Your task to perform on an android device: add a contact Image 0: 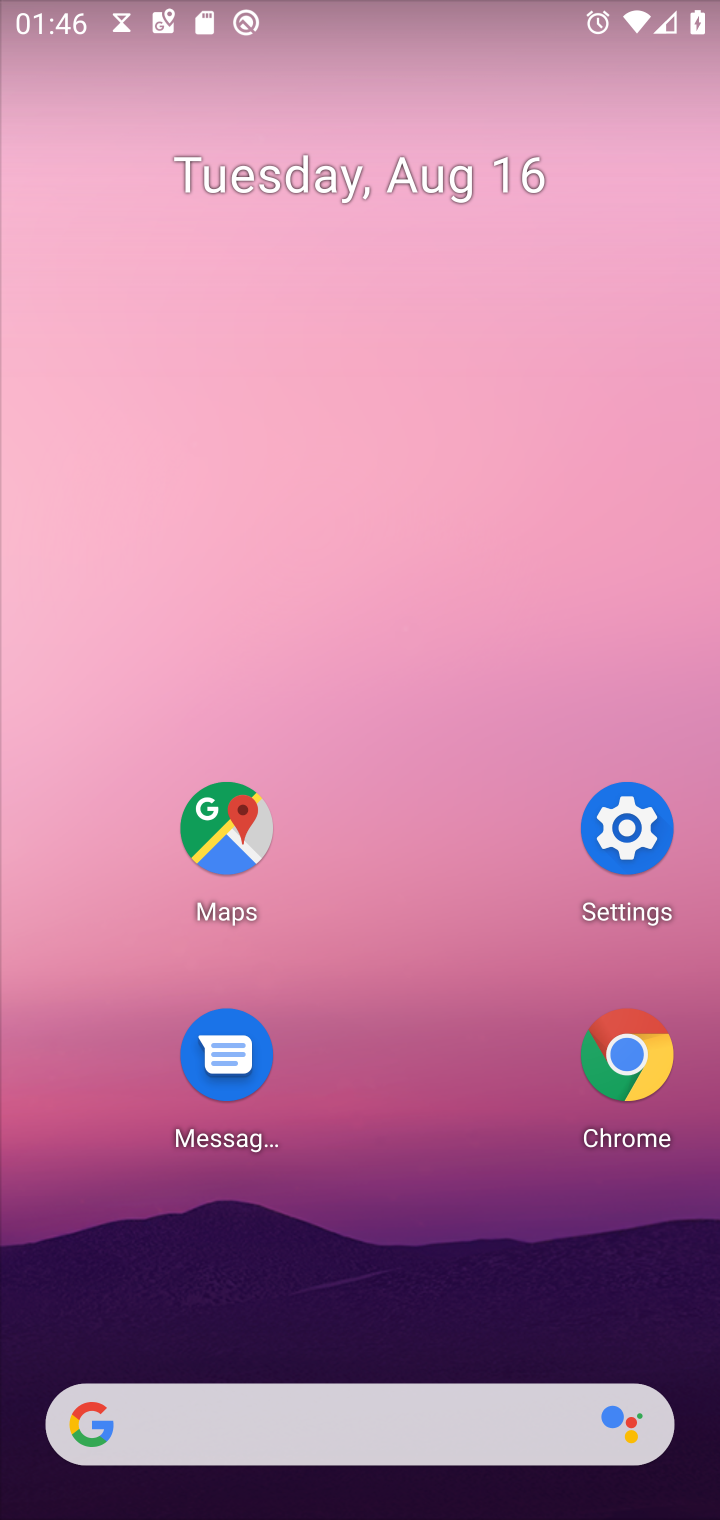
Step 0: press home button
Your task to perform on an android device: add a contact Image 1: 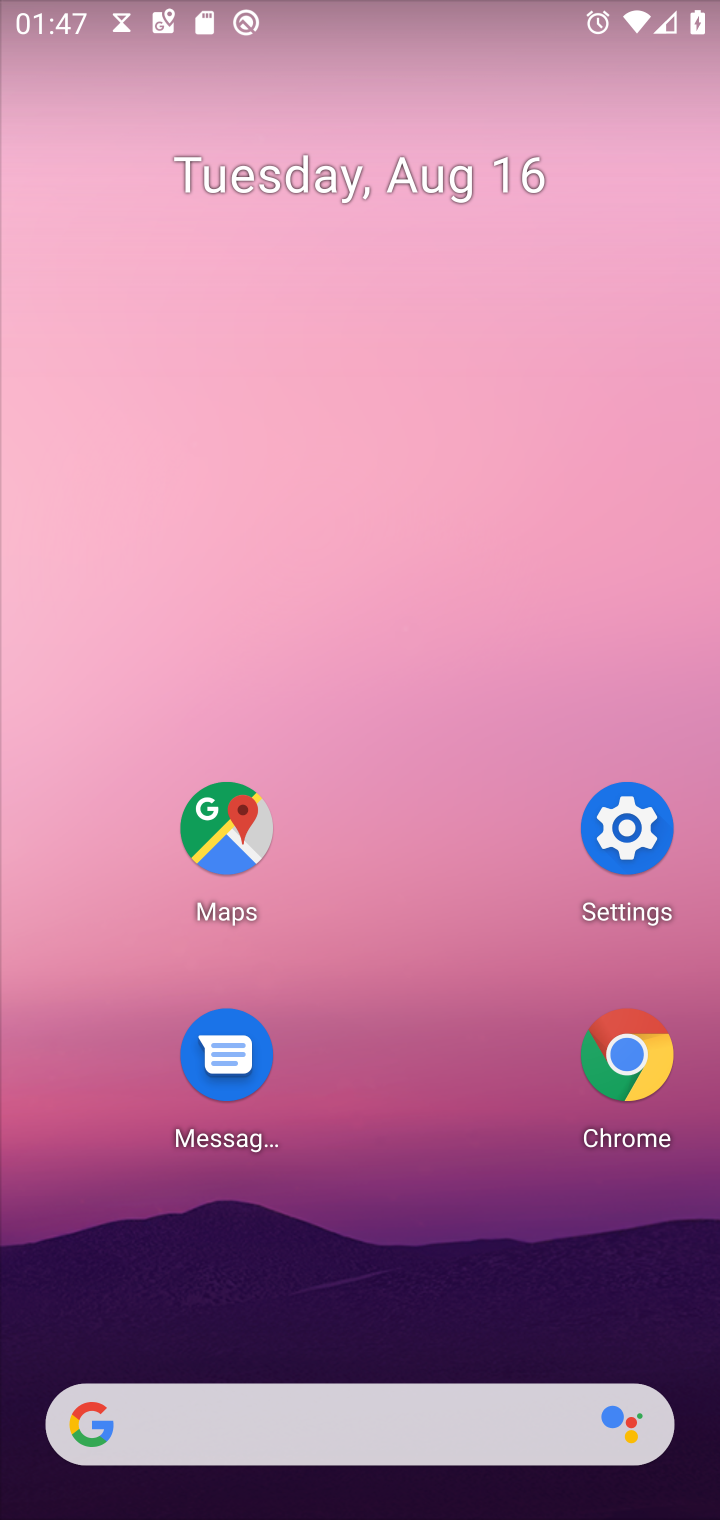
Step 1: drag from (278, 1407) to (435, 112)
Your task to perform on an android device: add a contact Image 2: 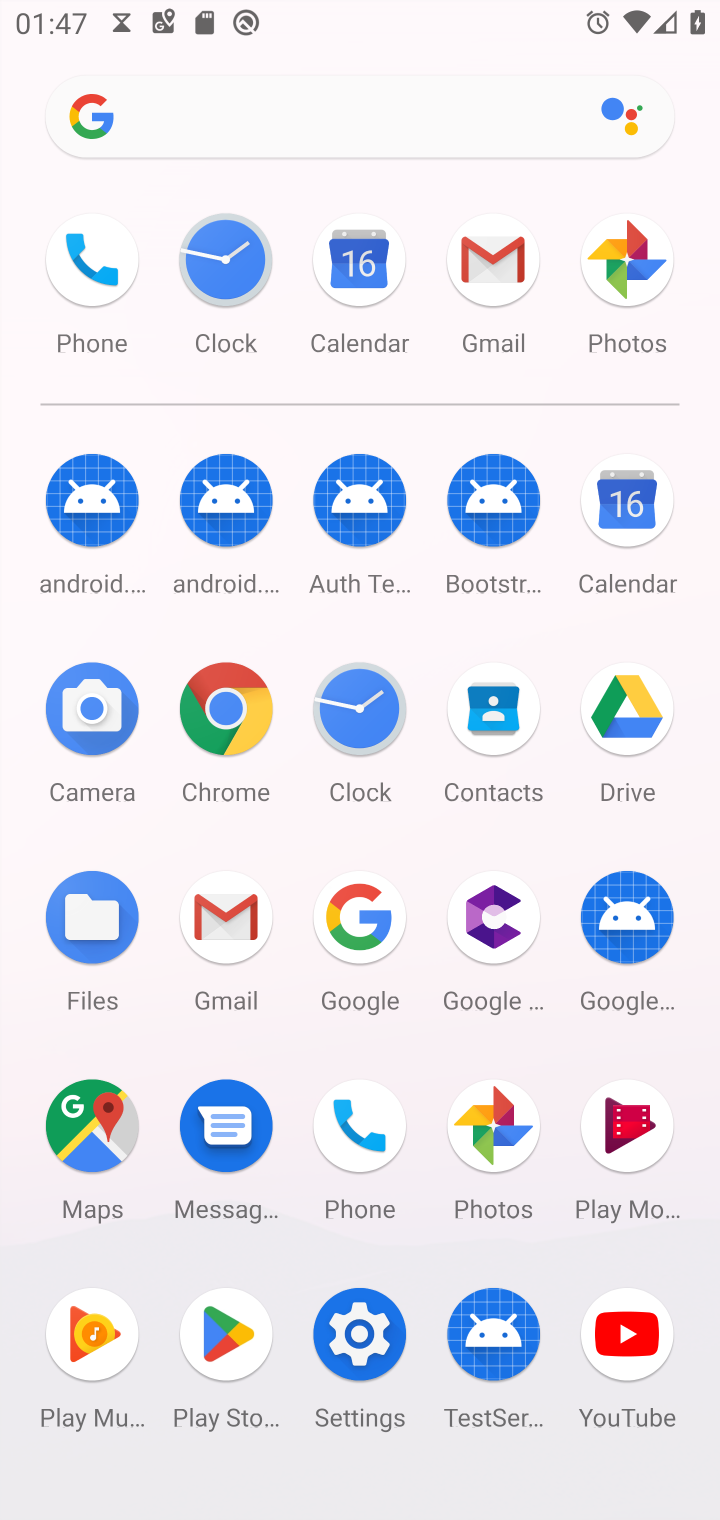
Step 2: click (482, 732)
Your task to perform on an android device: add a contact Image 3: 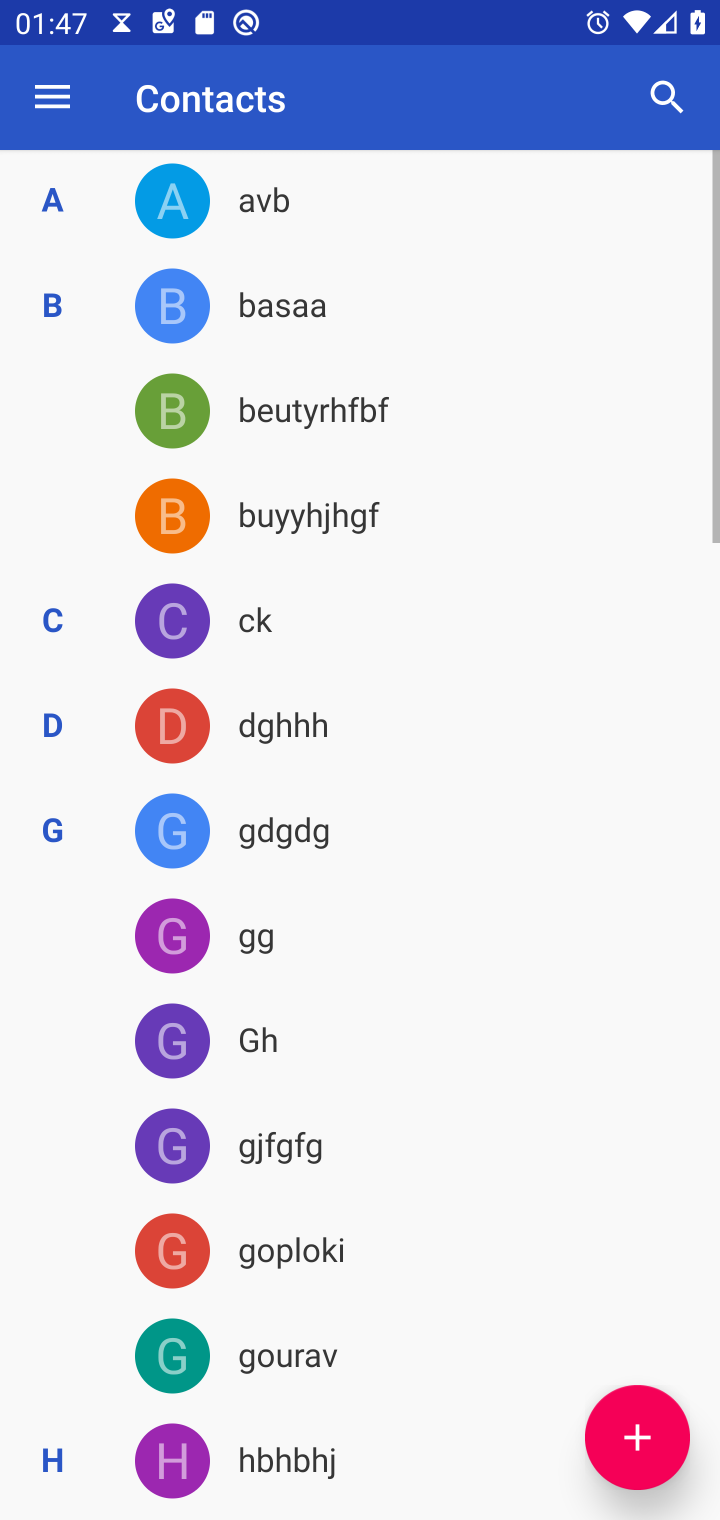
Step 3: drag from (640, 1437) to (504, 108)
Your task to perform on an android device: add a contact Image 4: 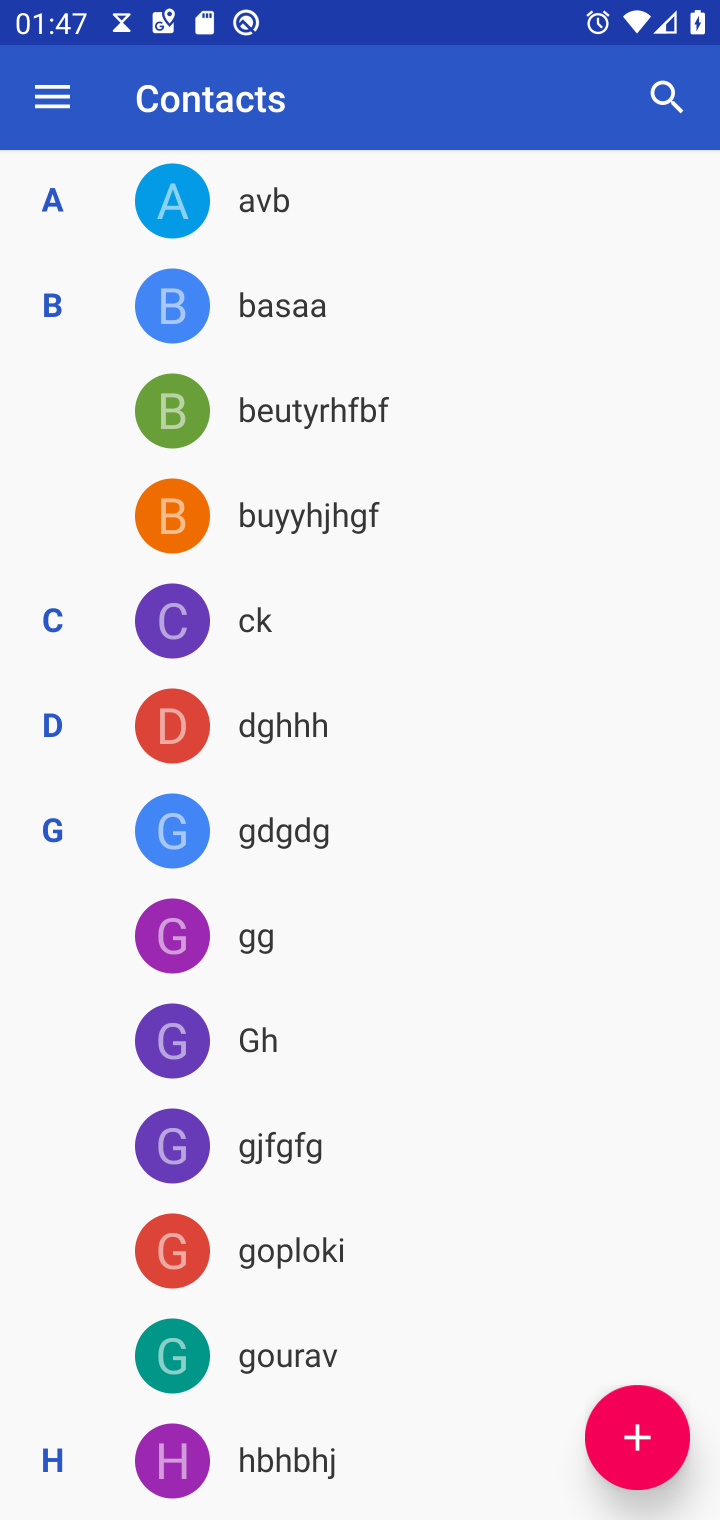
Step 4: click (650, 1428)
Your task to perform on an android device: add a contact Image 5: 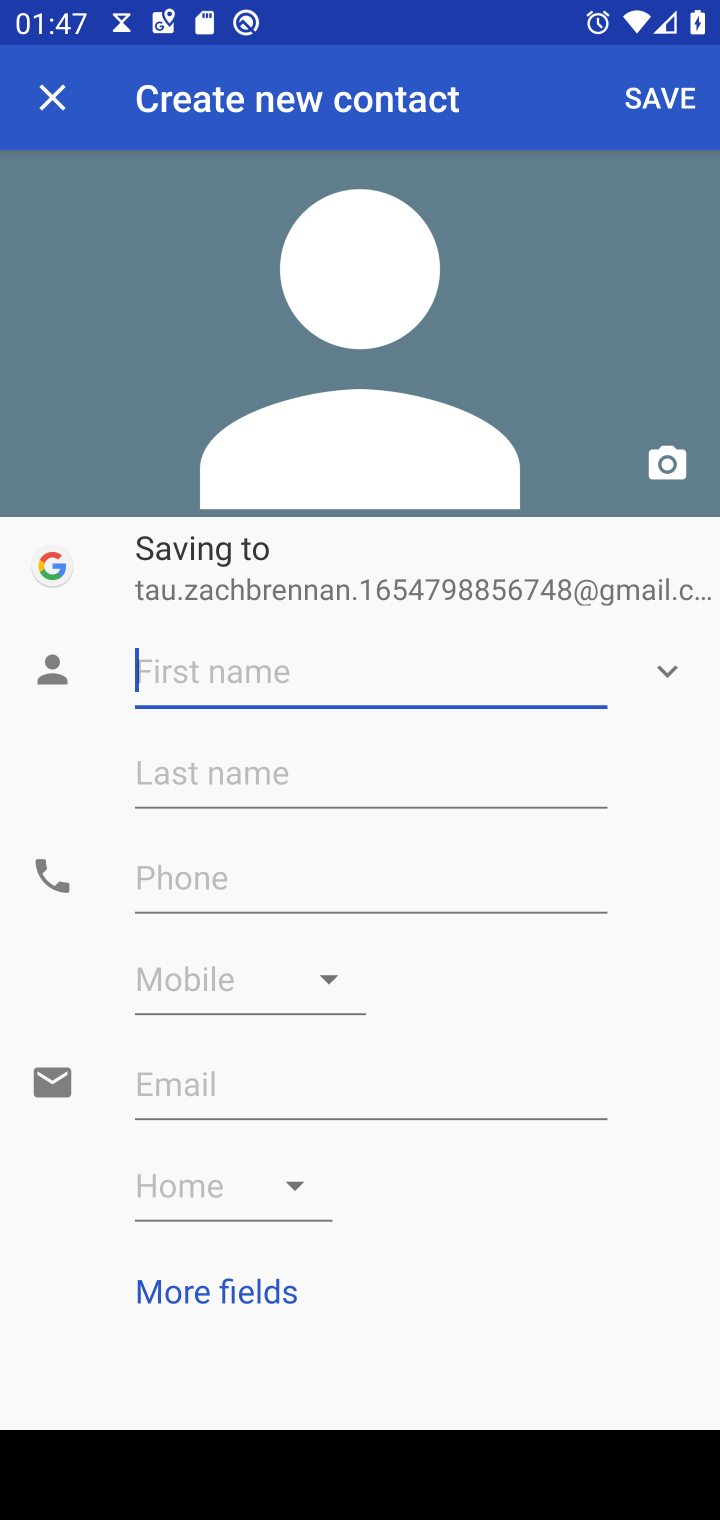
Step 5: type "nakdjfhrythg"
Your task to perform on an android device: add a contact Image 6: 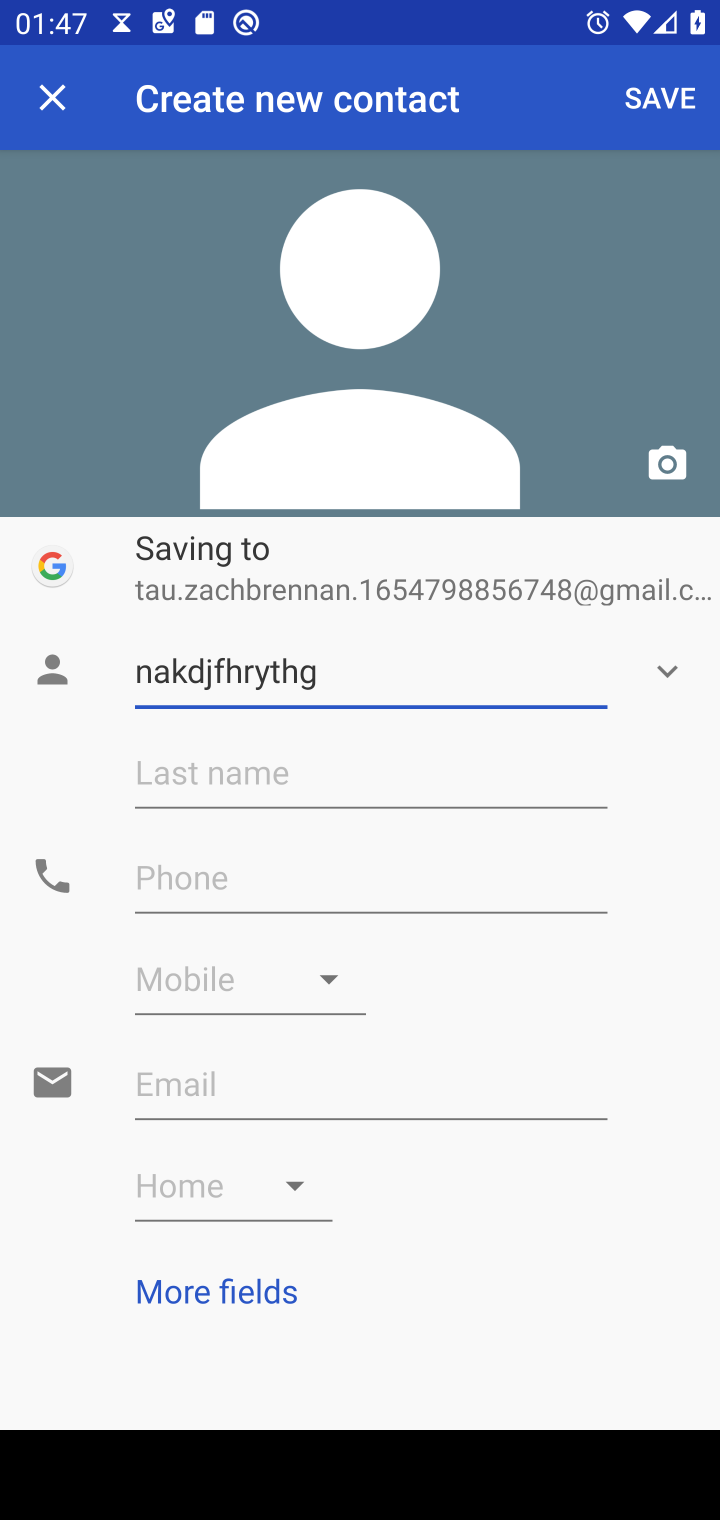
Step 6: click (226, 869)
Your task to perform on an android device: add a contact Image 7: 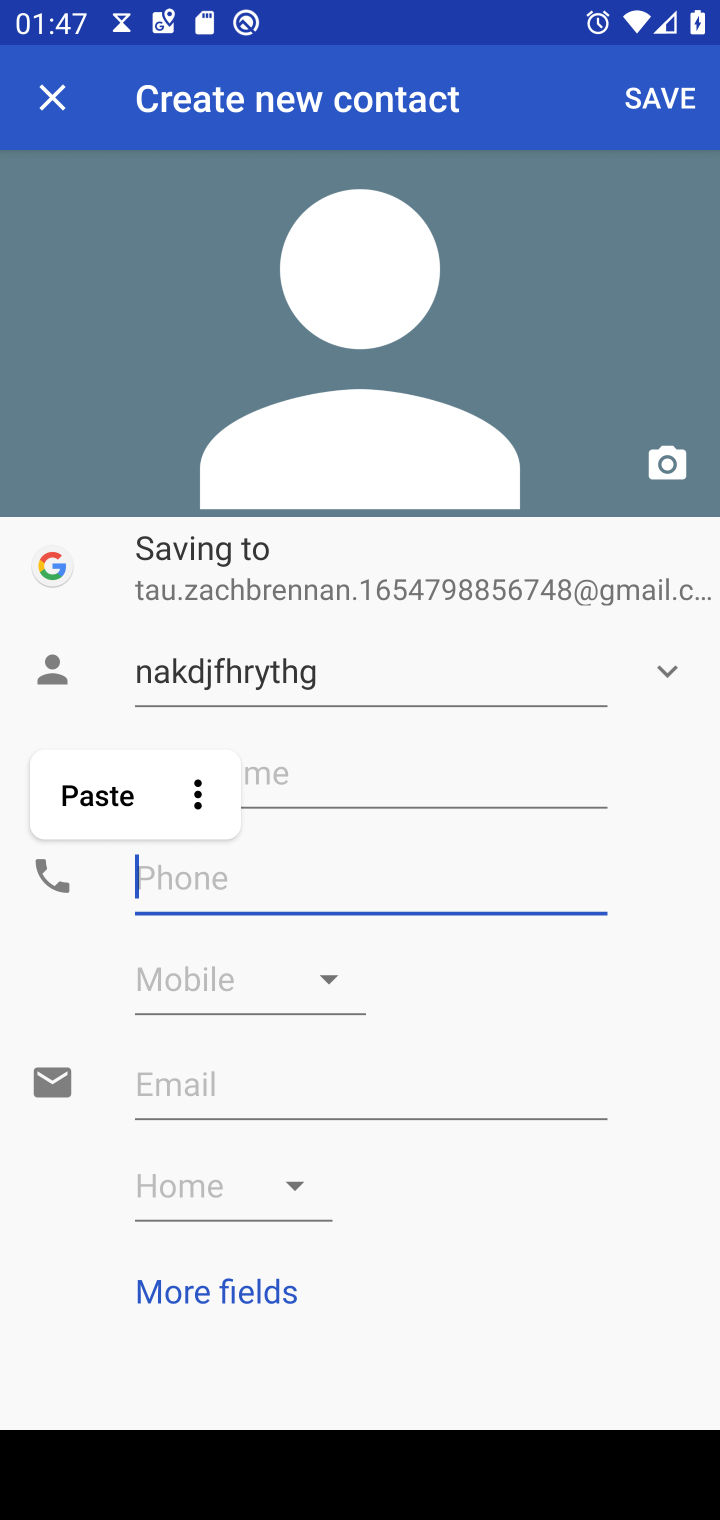
Step 7: type "1047663738"
Your task to perform on an android device: add a contact Image 8: 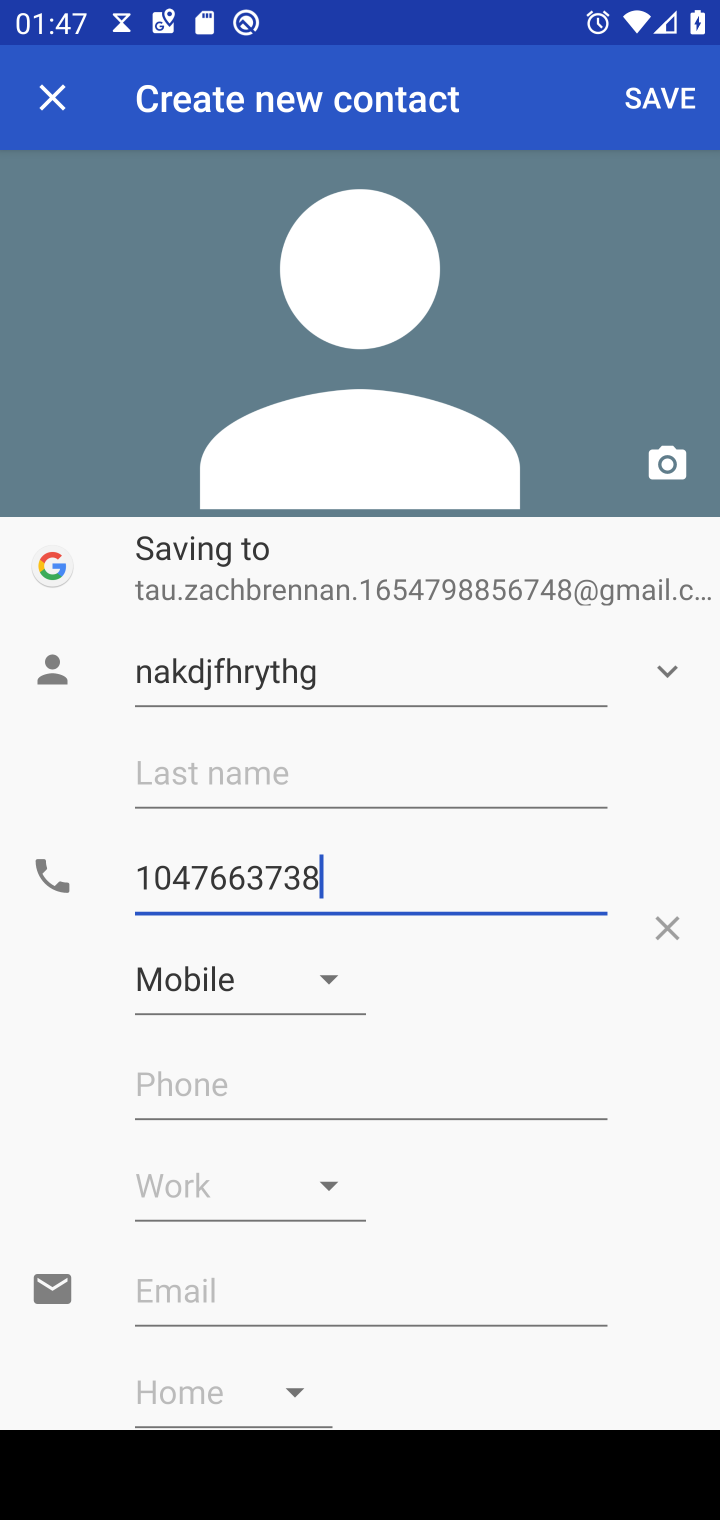
Step 8: click (676, 102)
Your task to perform on an android device: add a contact Image 9: 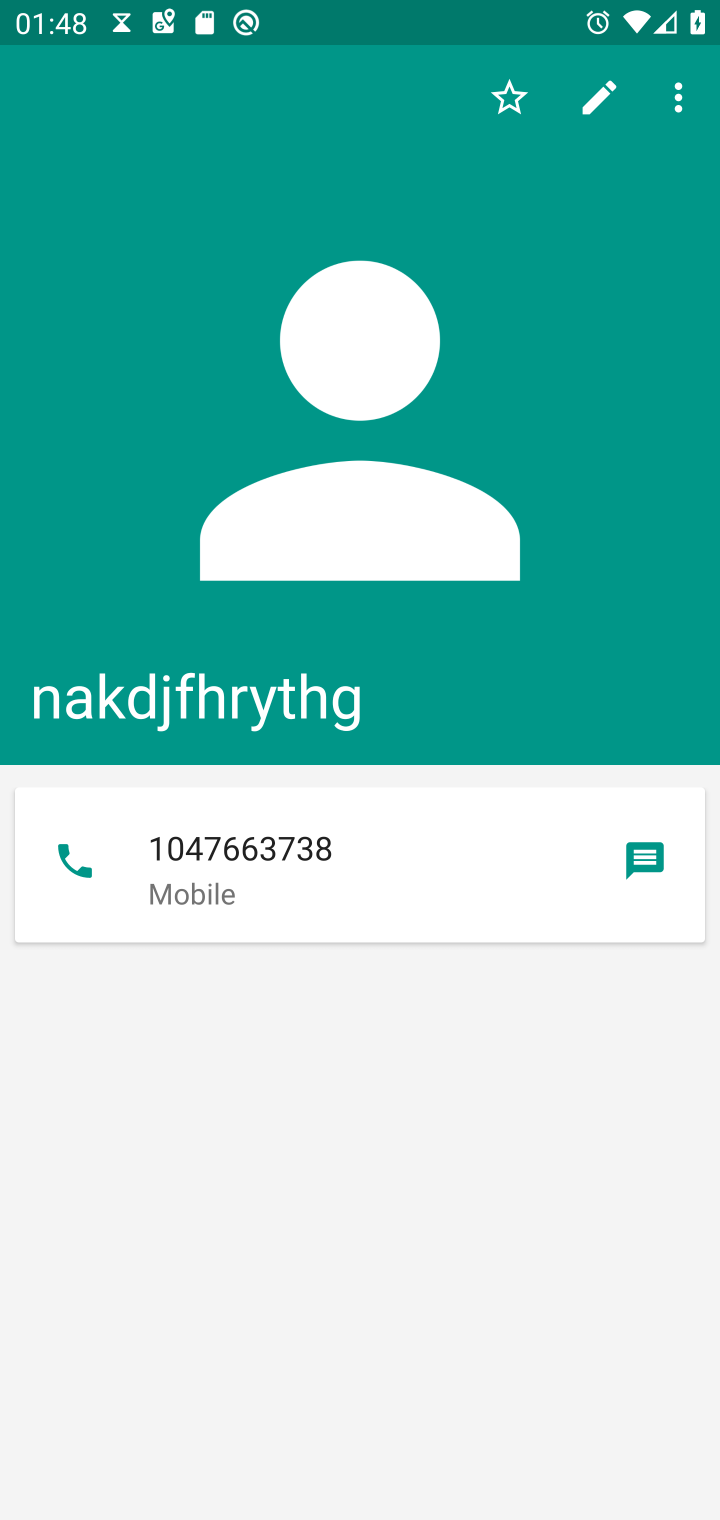
Step 9: task complete